Your task to perform on an android device: Open calendar and show me the first week of next month Image 0: 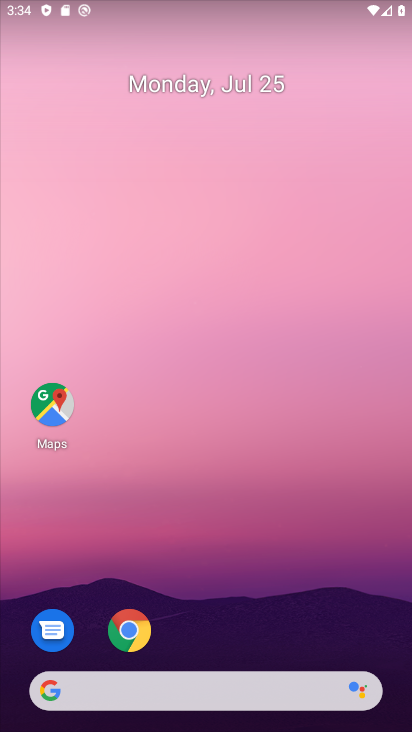
Step 0: drag from (248, 638) to (247, 303)
Your task to perform on an android device: Open calendar and show me the first week of next month Image 1: 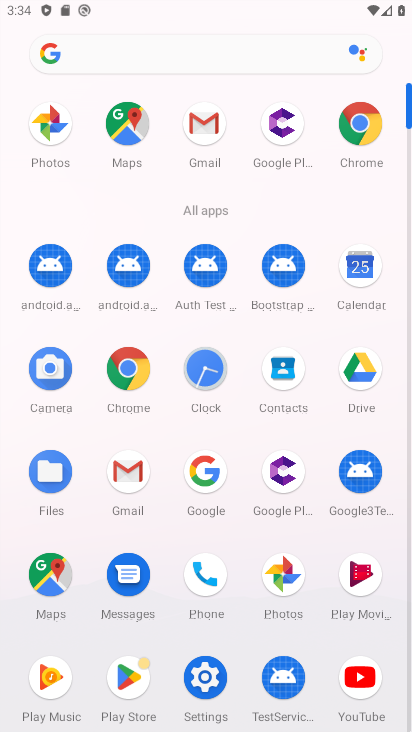
Step 1: click (356, 266)
Your task to perform on an android device: Open calendar and show me the first week of next month Image 2: 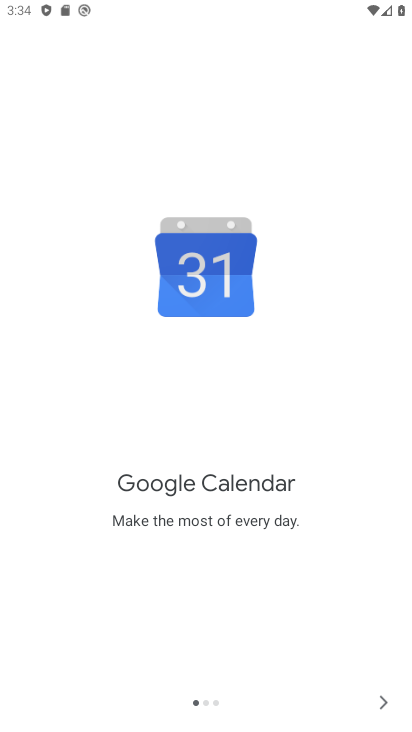
Step 2: click (390, 696)
Your task to perform on an android device: Open calendar and show me the first week of next month Image 3: 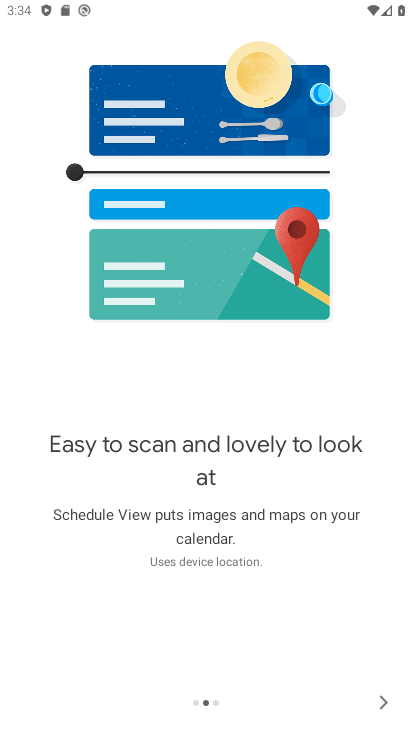
Step 3: click (380, 711)
Your task to perform on an android device: Open calendar and show me the first week of next month Image 4: 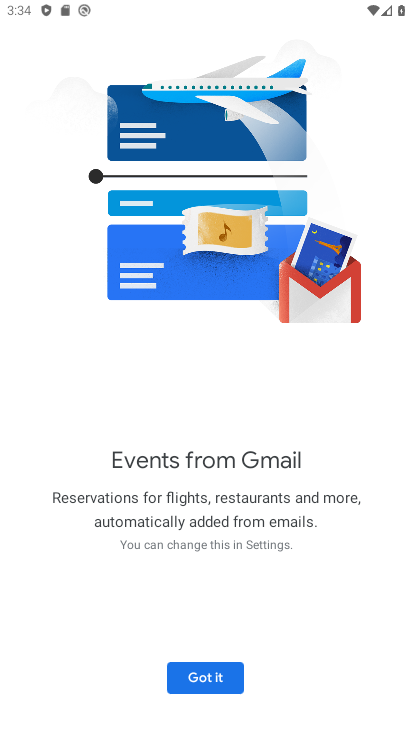
Step 4: click (179, 673)
Your task to perform on an android device: Open calendar and show me the first week of next month Image 5: 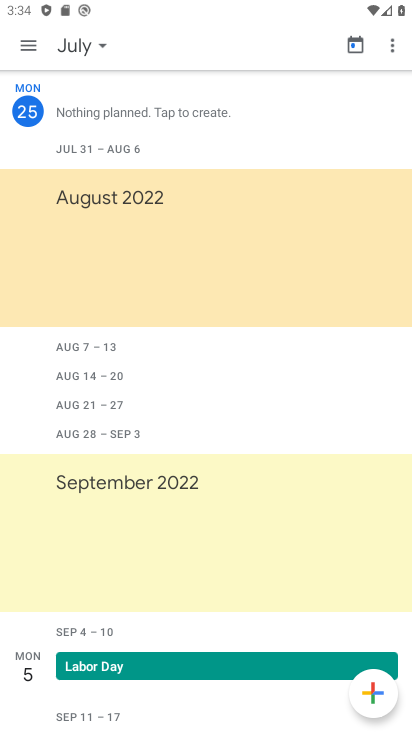
Step 5: click (34, 52)
Your task to perform on an android device: Open calendar and show me the first week of next month Image 6: 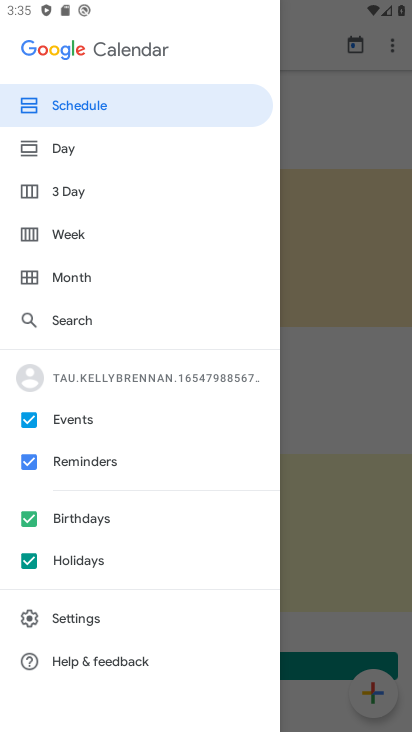
Step 6: click (61, 237)
Your task to perform on an android device: Open calendar and show me the first week of next month Image 7: 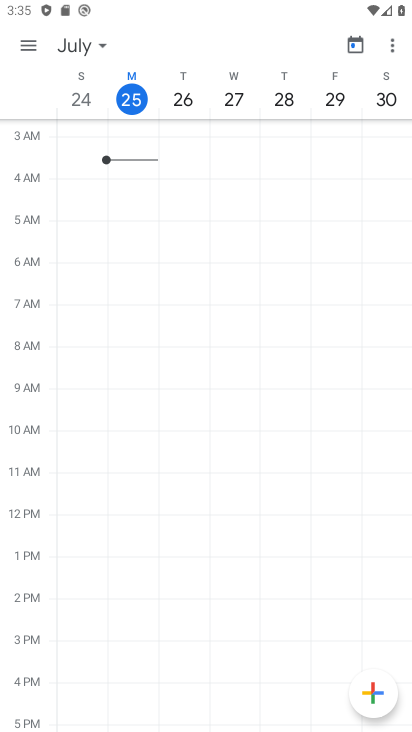
Step 7: click (99, 47)
Your task to perform on an android device: Open calendar and show me the first week of next month Image 8: 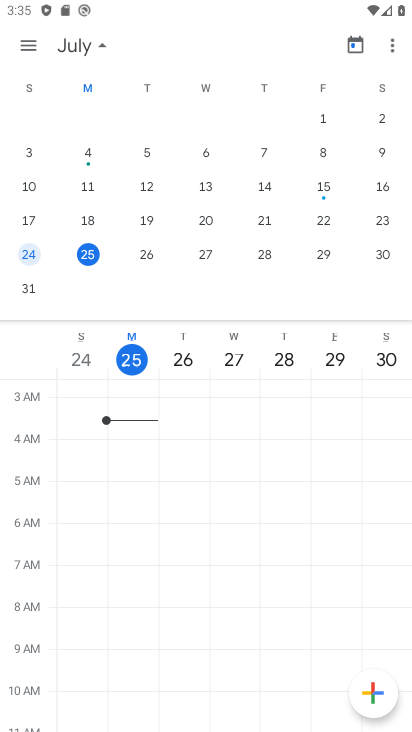
Step 8: drag from (382, 208) to (49, 210)
Your task to perform on an android device: Open calendar and show me the first week of next month Image 9: 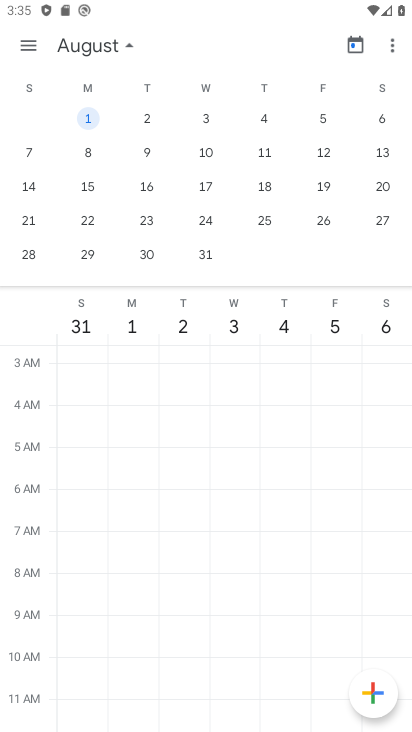
Step 9: click (204, 115)
Your task to perform on an android device: Open calendar and show me the first week of next month Image 10: 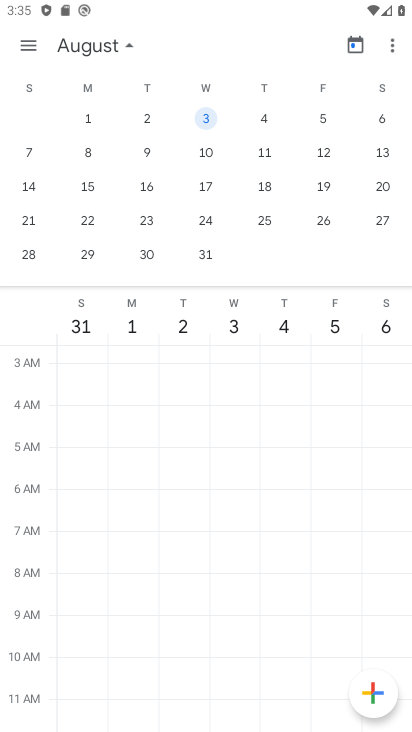
Step 10: task complete